Your task to perform on an android device: toggle airplane mode Image 0: 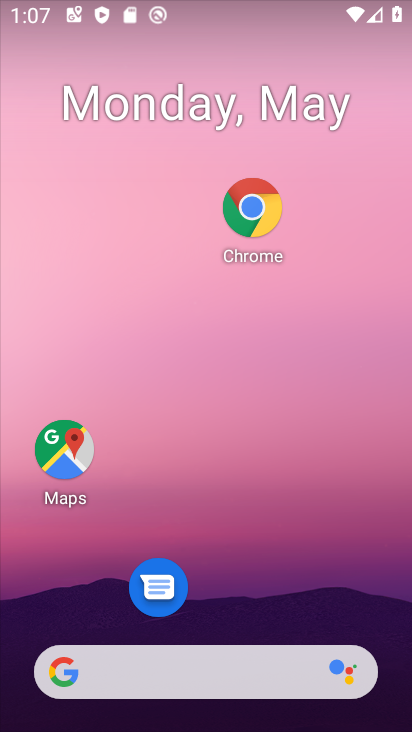
Step 0: drag from (108, 4) to (171, 270)
Your task to perform on an android device: toggle airplane mode Image 1: 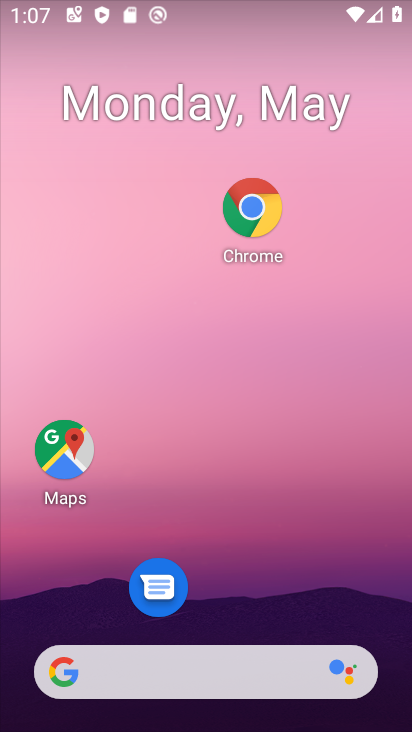
Step 1: drag from (101, 6) to (363, 698)
Your task to perform on an android device: toggle airplane mode Image 2: 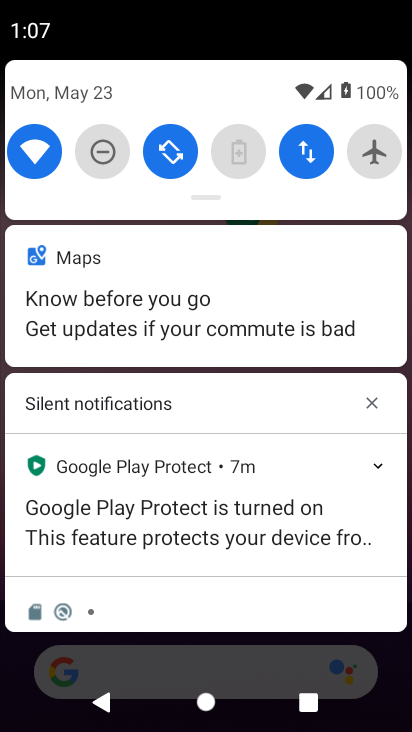
Step 2: click (372, 154)
Your task to perform on an android device: toggle airplane mode Image 3: 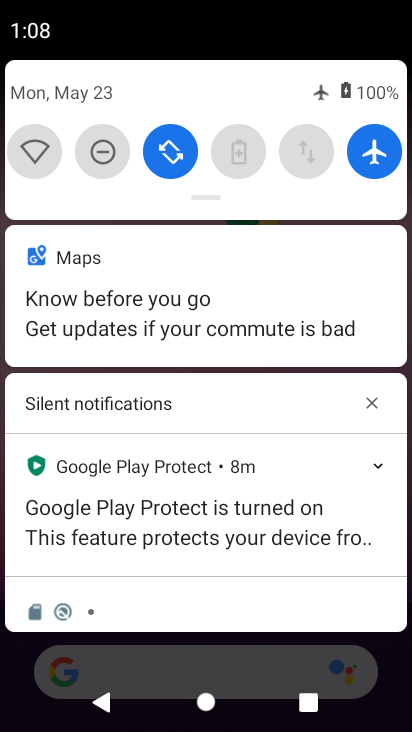
Step 3: task complete